Your task to perform on an android device: turn off data saver in the chrome app Image 0: 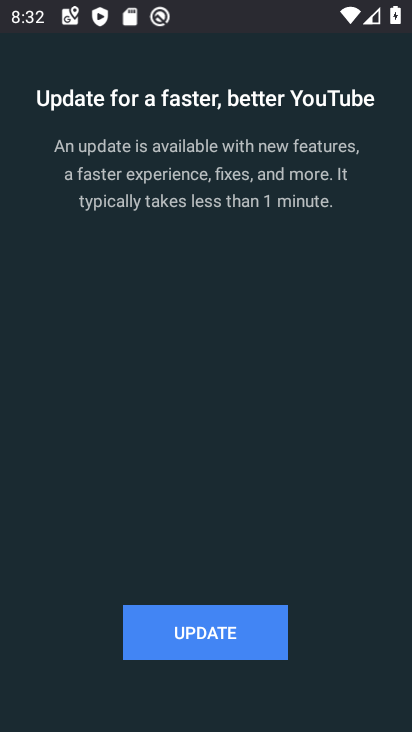
Step 0: press back button
Your task to perform on an android device: turn off data saver in the chrome app Image 1: 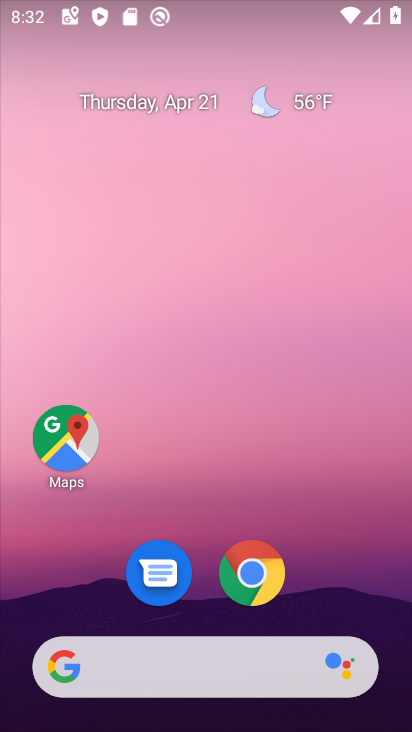
Step 1: click (276, 557)
Your task to perform on an android device: turn off data saver in the chrome app Image 2: 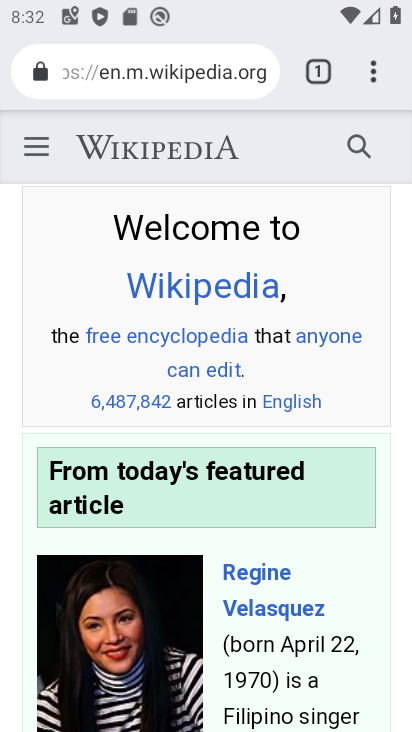
Step 2: click (375, 63)
Your task to perform on an android device: turn off data saver in the chrome app Image 3: 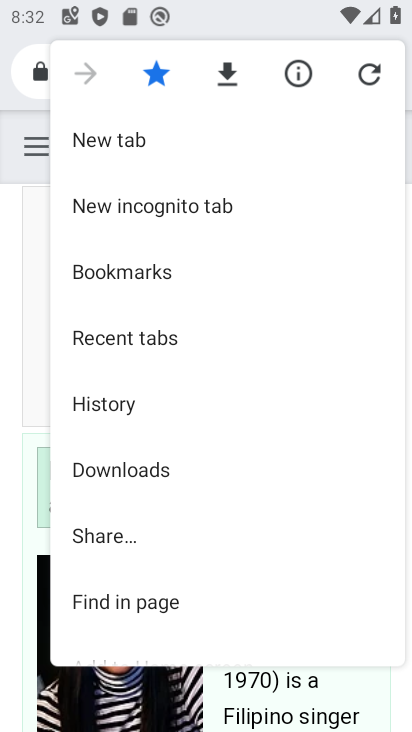
Step 3: drag from (148, 565) to (117, 241)
Your task to perform on an android device: turn off data saver in the chrome app Image 4: 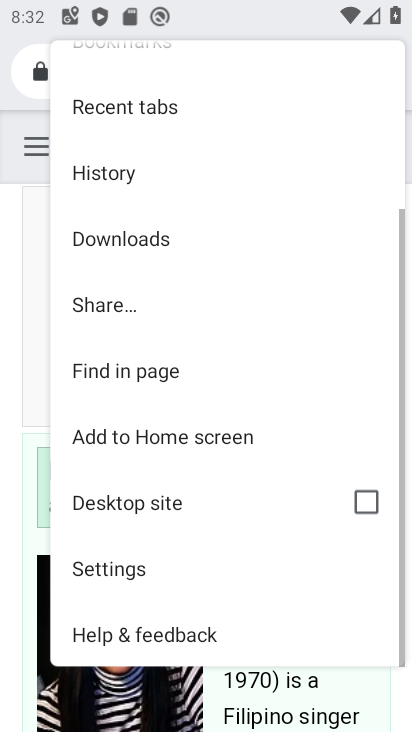
Step 4: click (112, 568)
Your task to perform on an android device: turn off data saver in the chrome app Image 5: 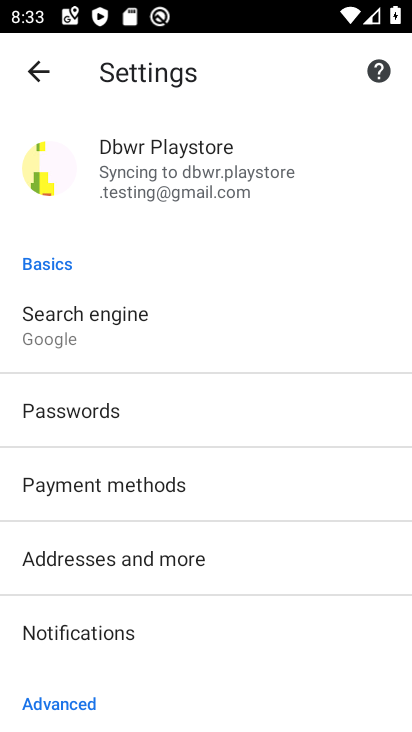
Step 5: drag from (149, 555) to (126, 176)
Your task to perform on an android device: turn off data saver in the chrome app Image 6: 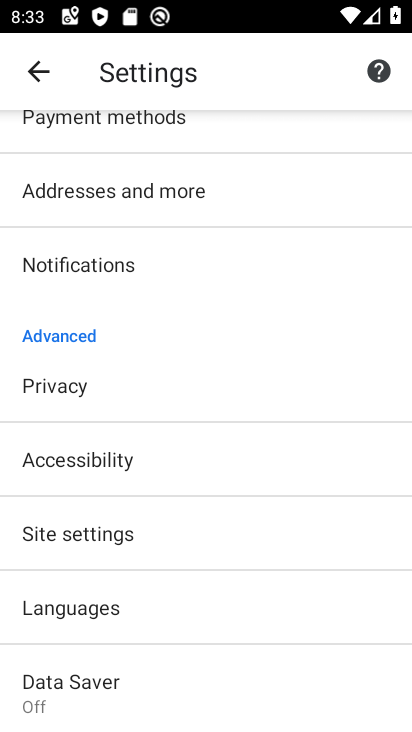
Step 6: click (104, 668)
Your task to perform on an android device: turn off data saver in the chrome app Image 7: 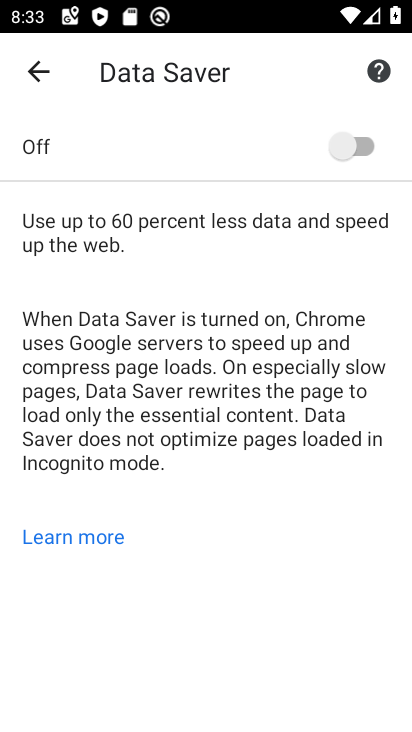
Step 7: task complete